Your task to perform on an android device: open chrome and create a bookmark for the current page Image 0: 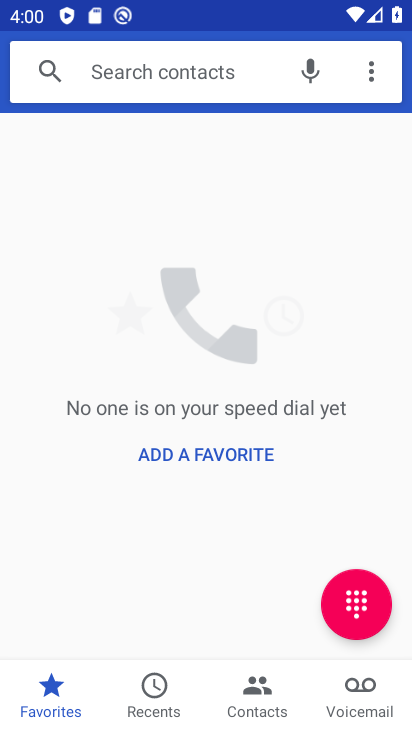
Step 0: press home button
Your task to perform on an android device: open chrome and create a bookmark for the current page Image 1: 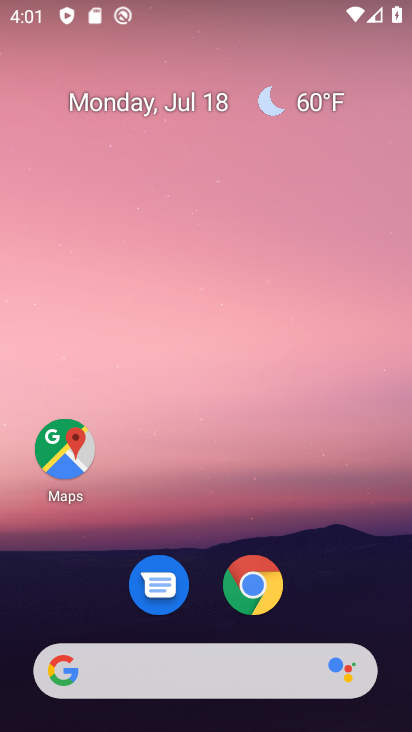
Step 1: click (258, 580)
Your task to perform on an android device: open chrome and create a bookmark for the current page Image 2: 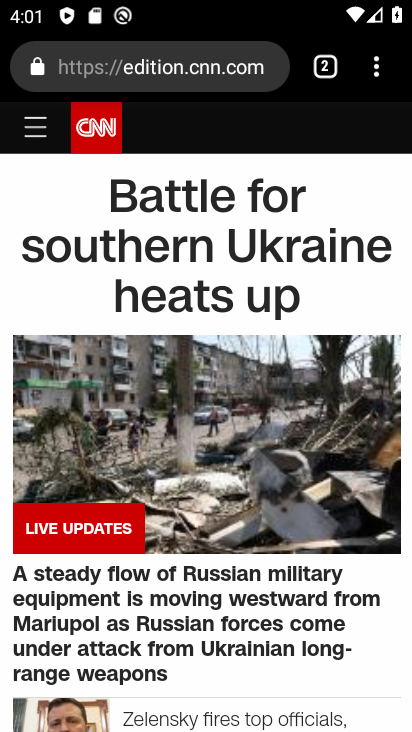
Step 2: click (375, 79)
Your task to perform on an android device: open chrome and create a bookmark for the current page Image 3: 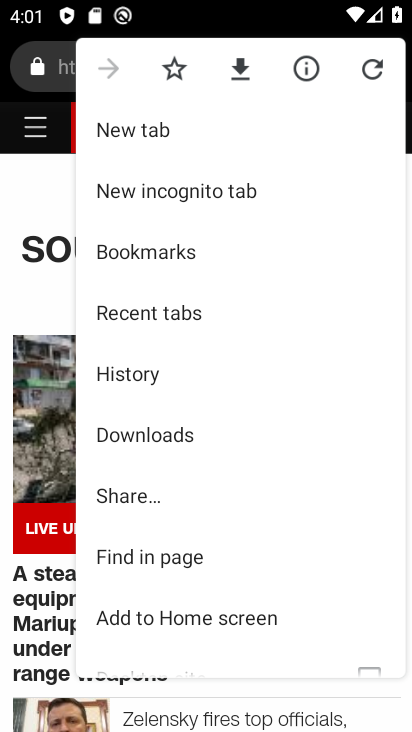
Step 3: click (177, 64)
Your task to perform on an android device: open chrome and create a bookmark for the current page Image 4: 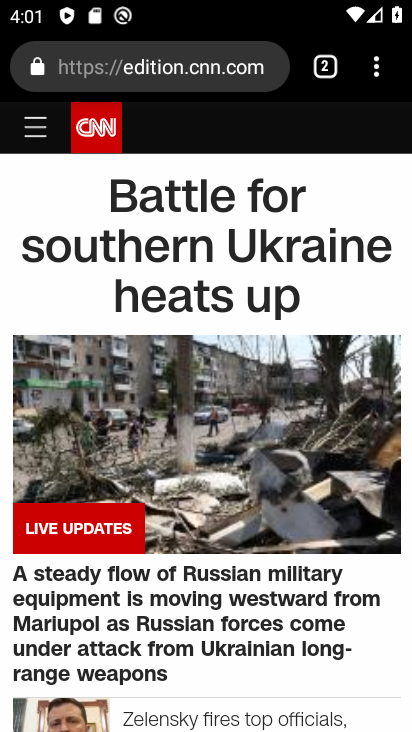
Step 4: task complete